Your task to perform on an android device: see creations saved in the google photos Image 0: 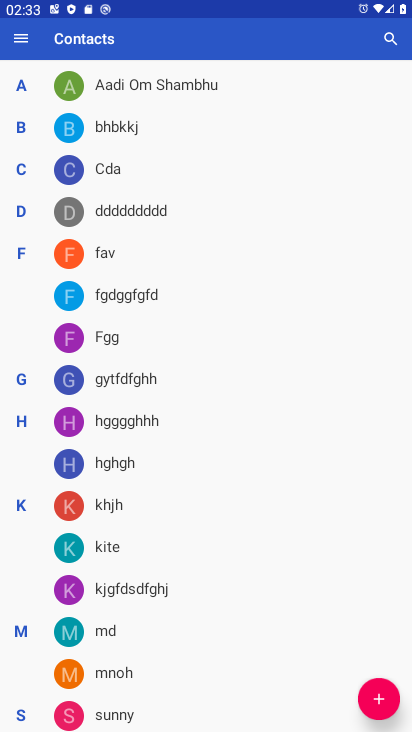
Step 0: press home button
Your task to perform on an android device: see creations saved in the google photos Image 1: 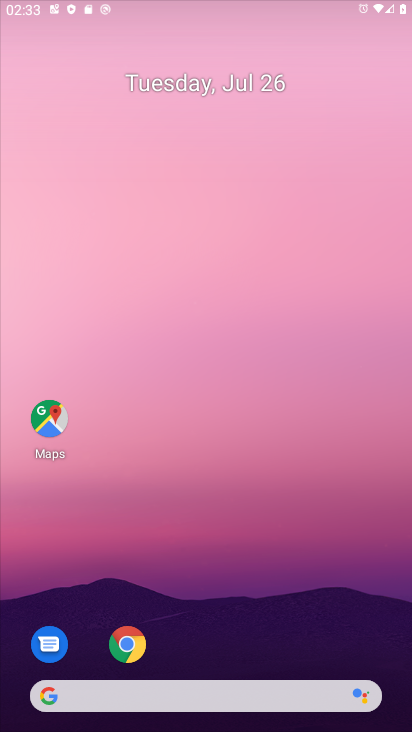
Step 1: drag from (215, 626) to (215, 50)
Your task to perform on an android device: see creations saved in the google photos Image 2: 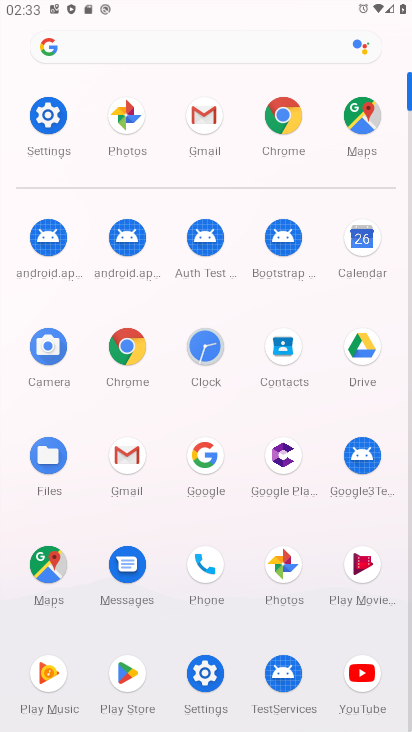
Step 2: click (142, 116)
Your task to perform on an android device: see creations saved in the google photos Image 3: 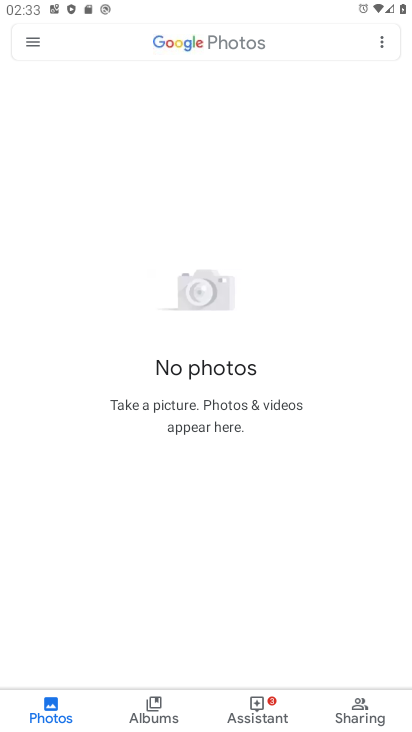
Step 3: click (153, 701)
Your task to perform on an android device: see creations saved in the google photos Image 4: 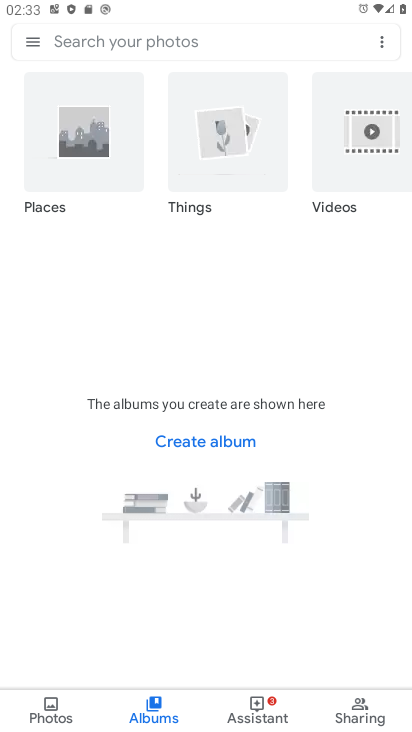
Step 4: task complete